Your task to perform on an android device: Open display settings Image 0: 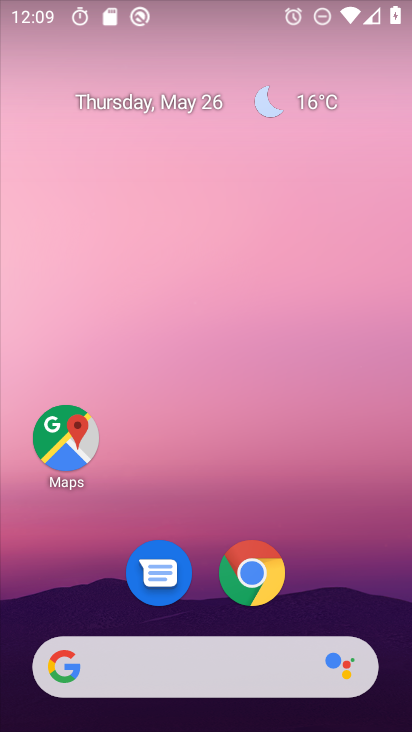
Step 0: drag from (367, 611) to (365, 0)
Your task to perform on an android device: Open display settings Image 1: 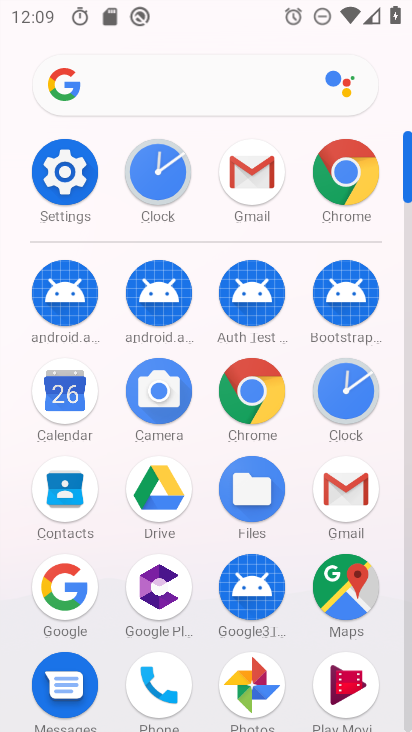
Step 1: click (65, 177)
Your task to perform on an android device: Open display settings Image 2: 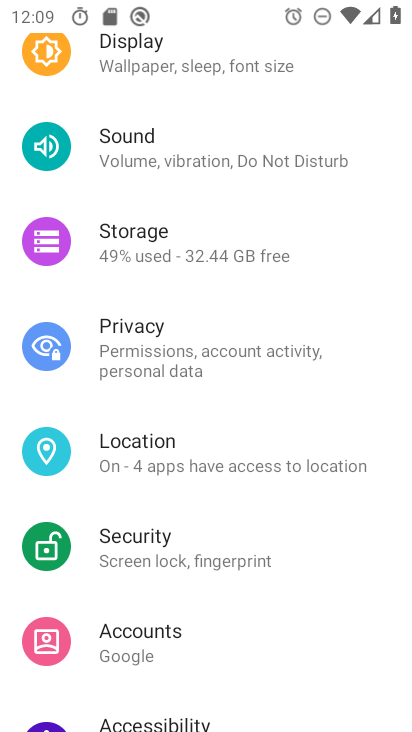
Step 2: click (134, 65)
Your task to perform on an android device: Open display settings Image 3: 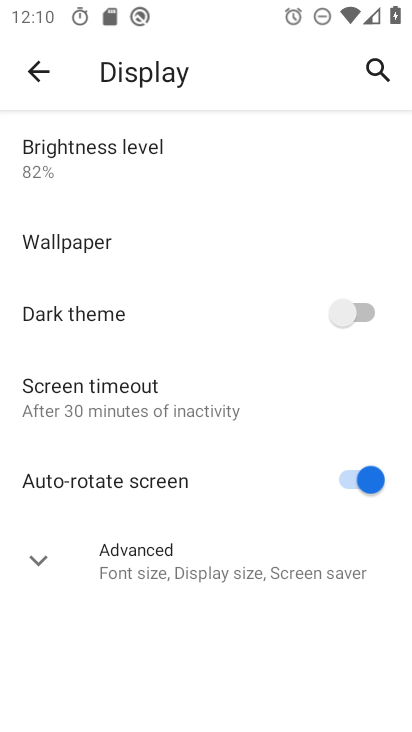
Step 3: task complete